Your task to perform on an android device: Open Chrome and go to the settings page Image 0: 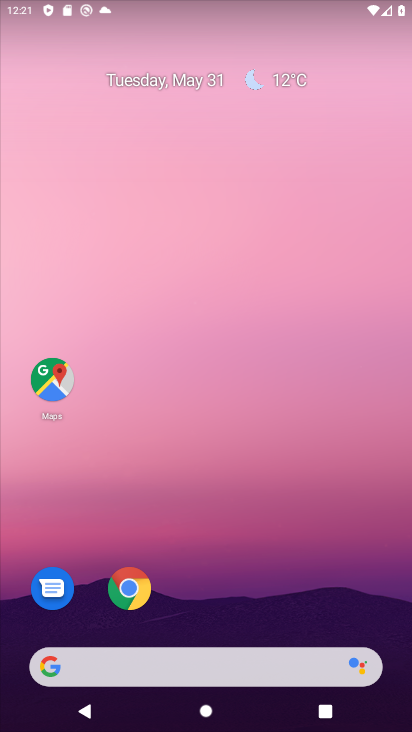
Step 0: click (130, 593)
Your task to perform on an android device: Open Chrome and go to the settings page Image 1: 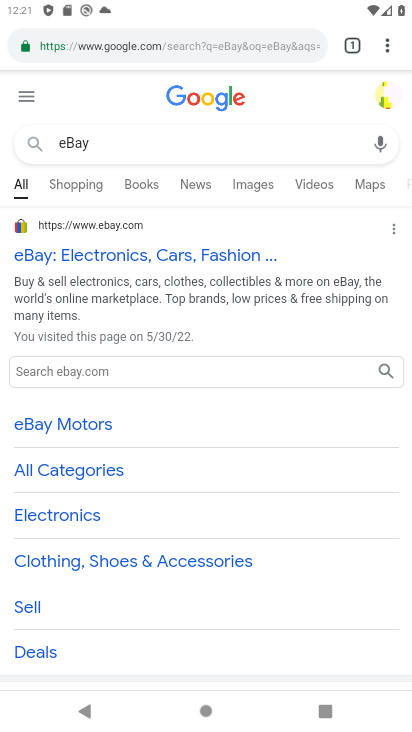
Step 1: drag from (283, 637) to (291, 271)
Your task to perform on an android device: Open Chrome and go to the settings page Image 2: 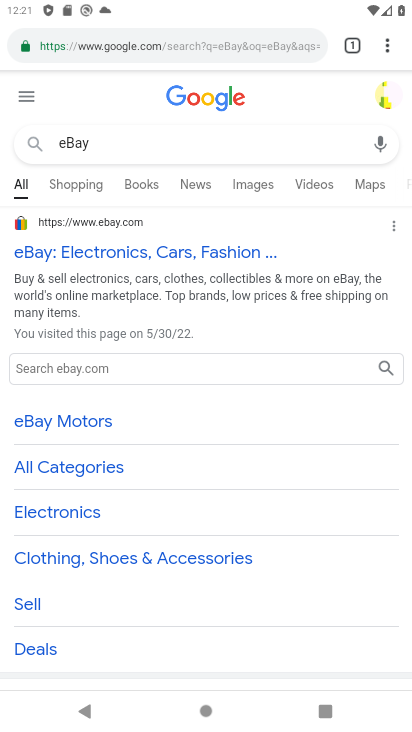
Step 2: drag from (289, 262) to (310, 547)
Your task to perform on an android device: Open Chrome and go to the settings page Image 3: 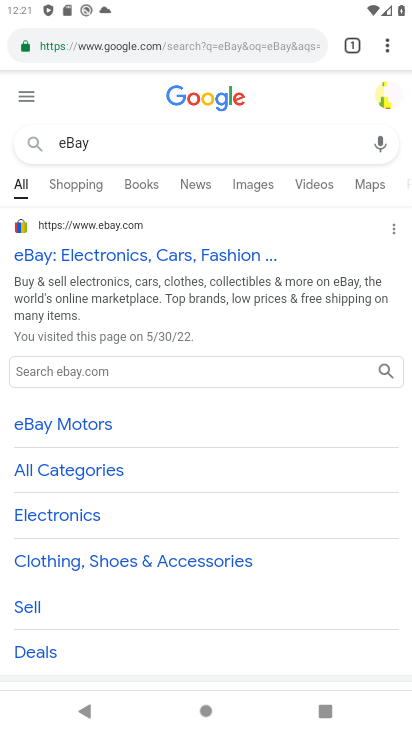
Step 3: drag from (237, 539) to (255, 324)
Your task to perform on an android device: Open Chrome and go to the settings page Image 4: 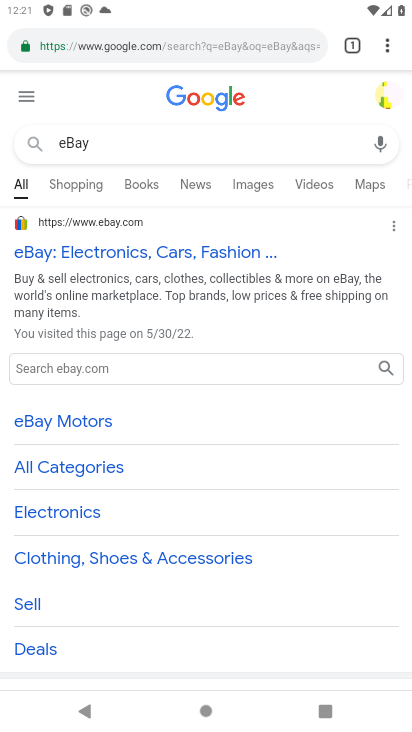
Step 4: click (387, 44)
Your task to perform on an android device: Open Chrome and go to the settings page Image 5: 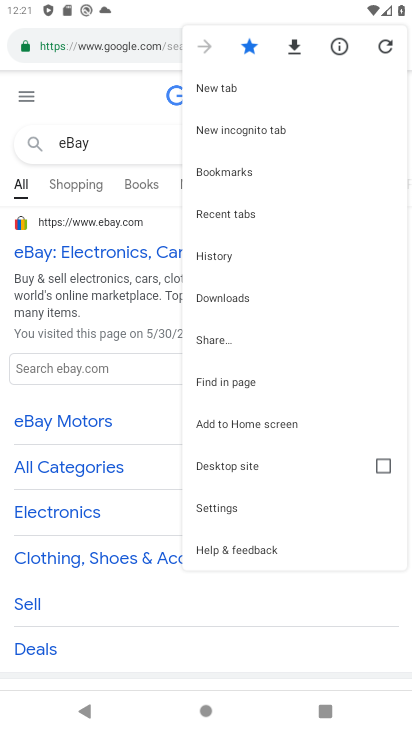
Step 5: click (236, 509)
Your task to perform on an android device: Open Chrome and go to the settings page Image 6: 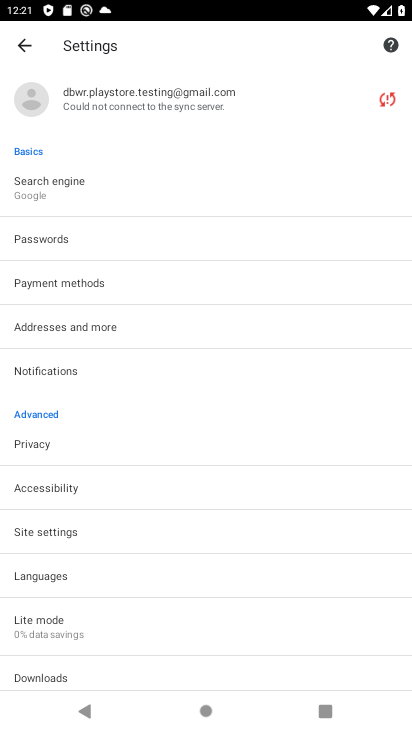
Step 6: task complete